Your task to perform on an android device: WHat are the new products by Samsung on eBay? Image 0: 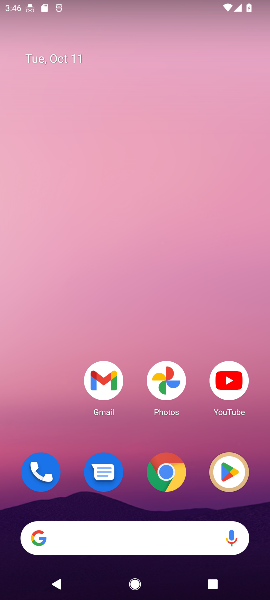
Step 0: click (170, 485)
Your task to perform on an android device: WHat are the new products by Samsung on eBay? Image 1: 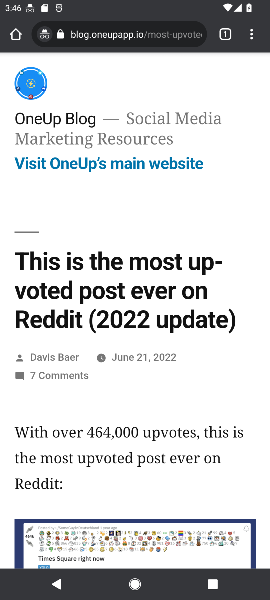
Step 1: click (90, 43)
Your task to perform on an android device: WHat are the new products by Samsung on eBay? Image 2: 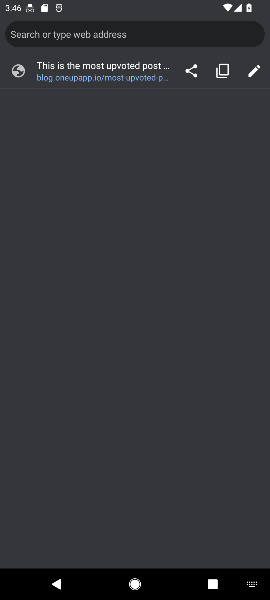
Step 2: type "WHat are the new products by Samsung on eBay?"
Your task to perform on an android device: WHat are the new products by Samsung on eBay? Image 3: 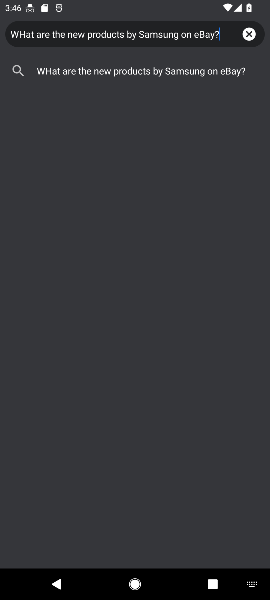
Step 3: click (72, 72)
Your task to perform on an android device: WHat are the new products by Samsung on eBay? Image 4: 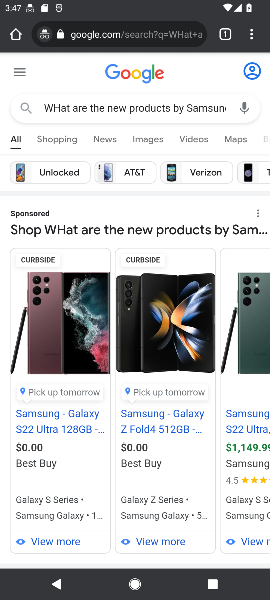
Step 4: click (57, 150)
Your task to perform on an android device: WHat are the new products by Samsung on eBay? Image 5: 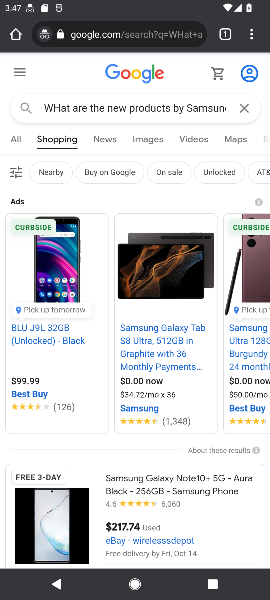
Step 5: task complete